Your task to perform on an android device: toggle improve location accuracy Image 0: 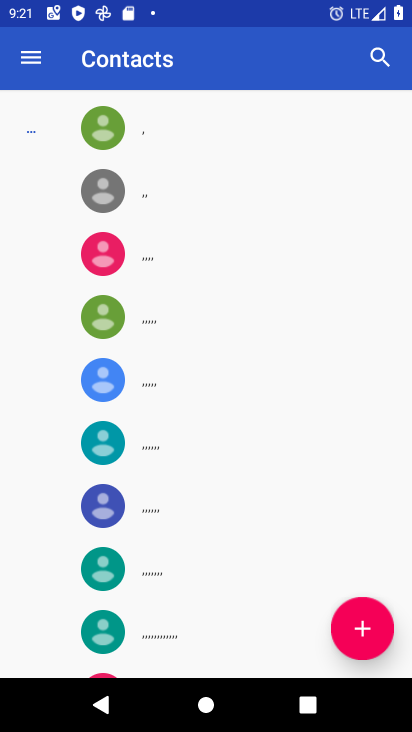
Step 0: press home button
Your task to perform on an android device: toggle improve location accuracy Image 1: 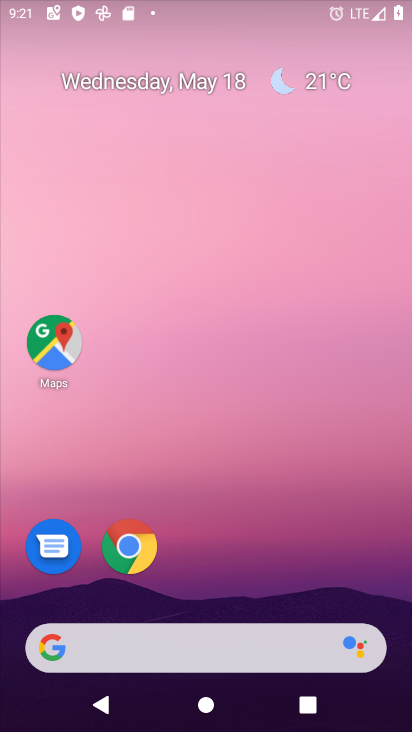
Step 1: drag from (392, 619) to (281, 10)
Your task to perform on an android device: toggle improve location accuracy Image 2: 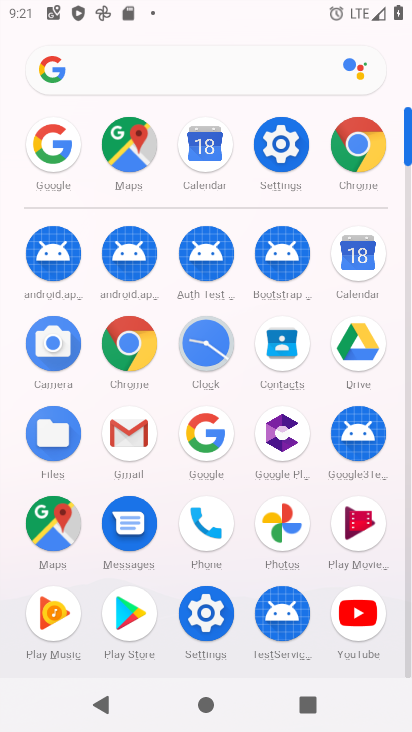
Step 2: click (197, 625)
Your task to perform on an android device: toggle improve location accuracy Image 3: 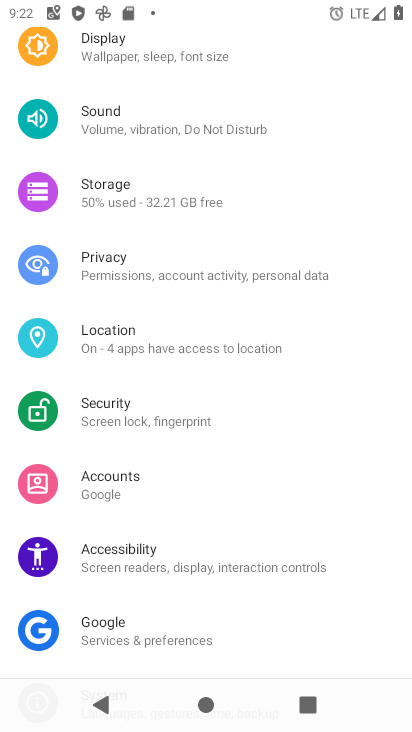
Step 3: click (139, 330)
Your task to perform on an android device: toggle improve location accuracy Image 4: 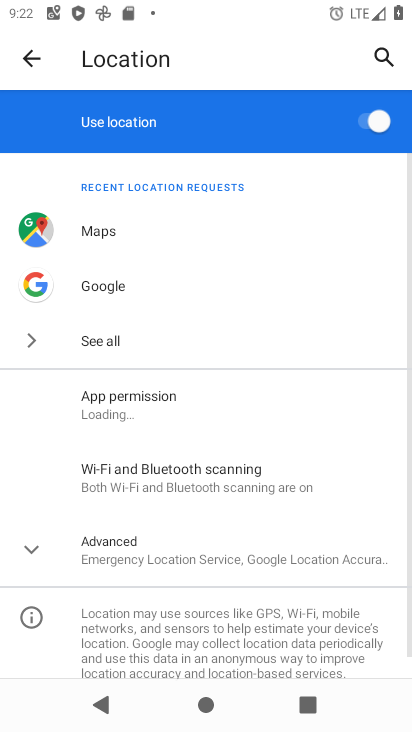
Step 4: click (192, 567)
Your task to perform on an android device: toggle improve location accuracy Image 5: 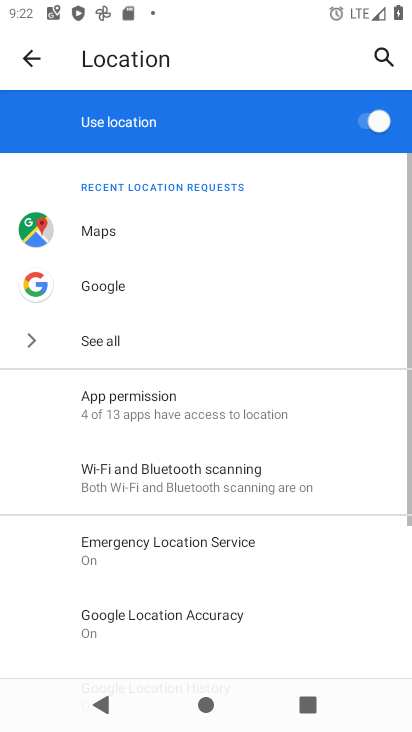
Step 5: drag from (192, 567) to (224, 336)
Your task to perform on an android device: toggle improve location accuracy Image 6: 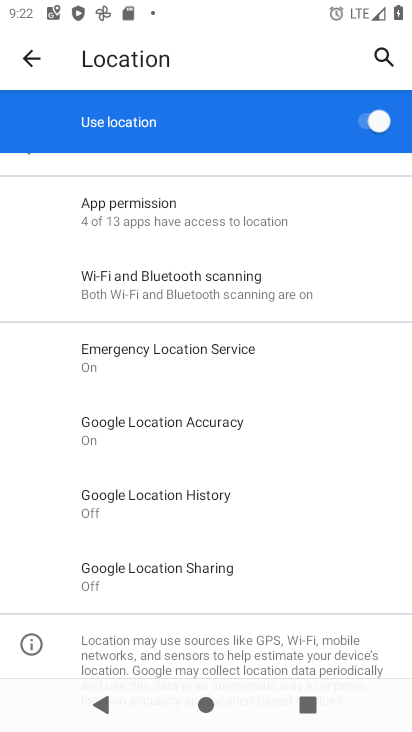
Step 6: click (208, 433)
Your task to perform on an android device: toggle improve location accuracy Image 7: 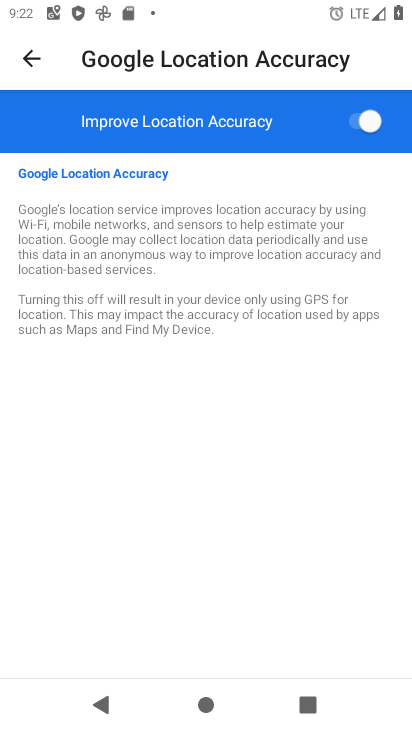
Step 7: click (340, 118)
Your task to perform on an android device: toggle improve location accuracy Image 8: 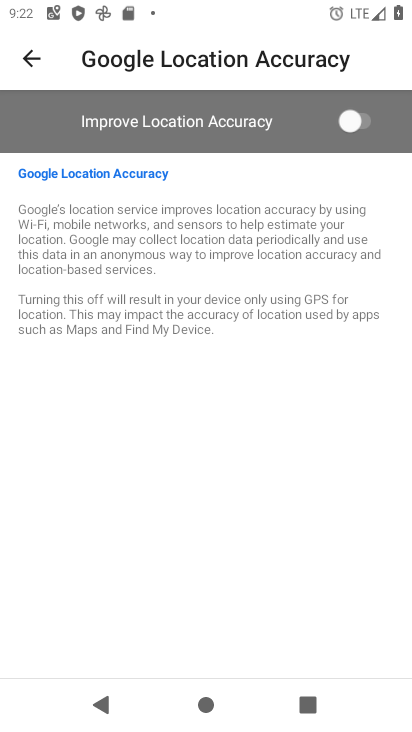
Step 8: task complete